Your task to perform on an android device: What's on my calendar today? Image 0: 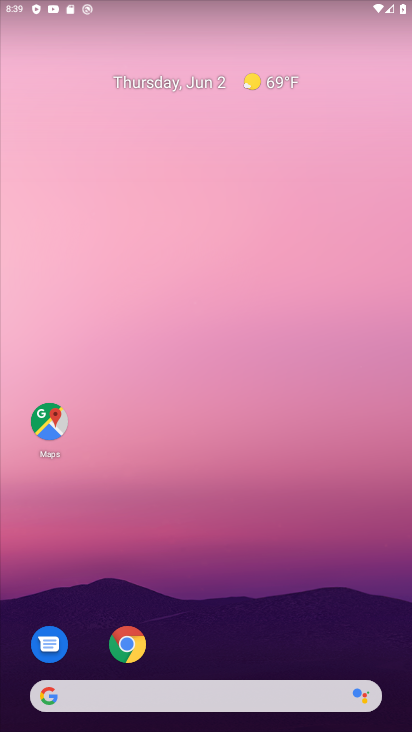
Step 0: drag from (219, 621) to (166, 28)
Your task to perform on an android device: What's on my calendar today? Image 1: 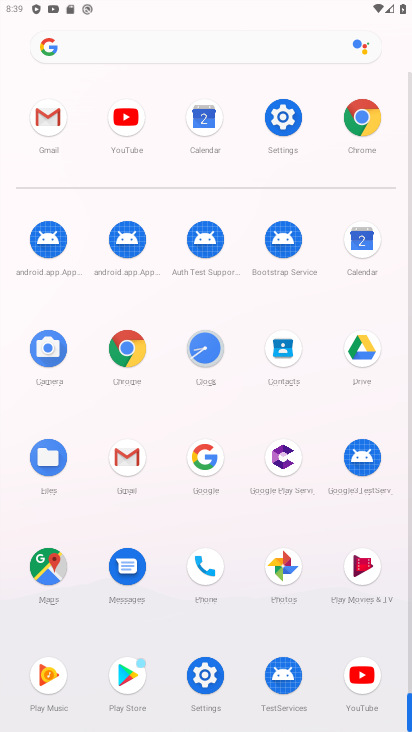
Step 1: drag from (11, 592) to (14, 207)
Your task to perform on an android device: What's on my calendar today? Image 2: 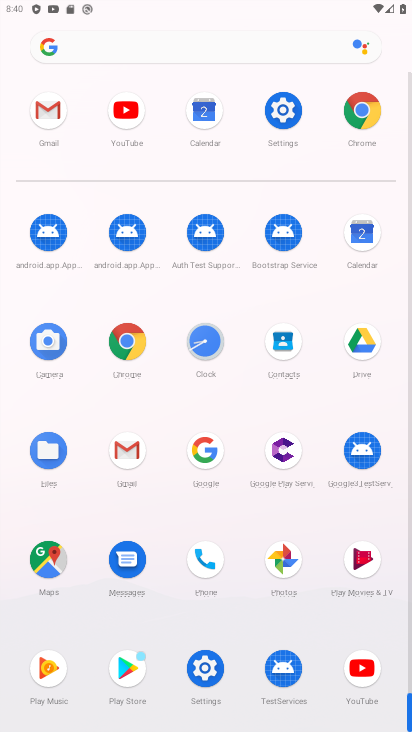
Step 2: click (359, 233)
Your task to perform on an android device: What's on my calendar today? Image 3: 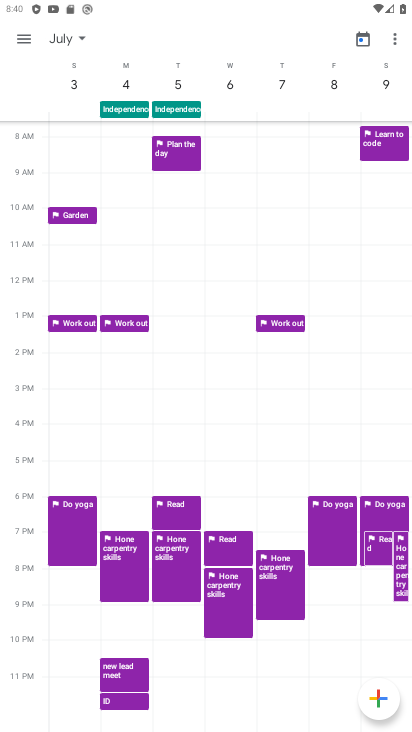
Step 3: click (34, 34)
Your task to perform on an android device: What's on my calendar today? Image 4: 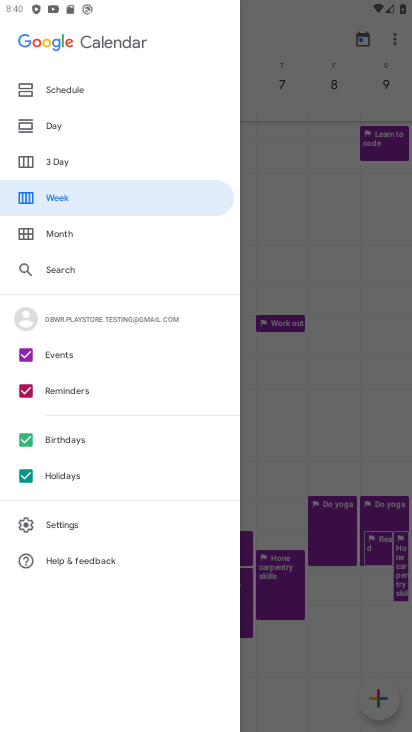
Step 4: click (43, 123)
Your task to perform on an android device: What's on my calendar today? Image 5: 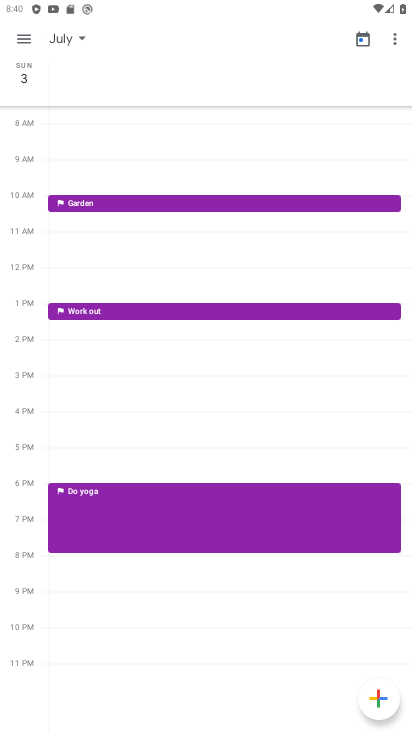
Step 5: task complete